Your task to perform on an android device: turn notification dots off Image 0: 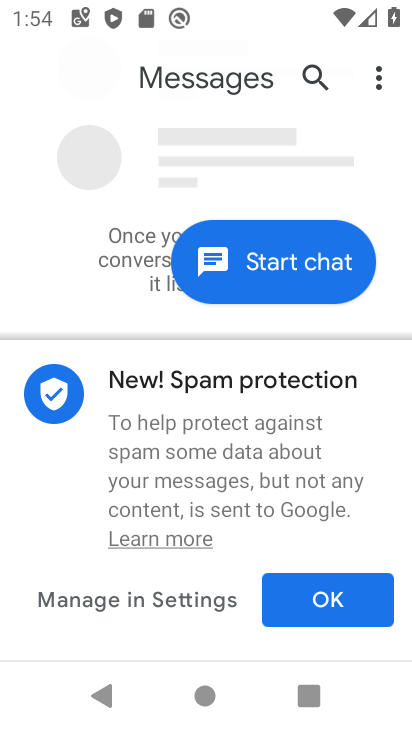
Step 0: press home button
Your task to perform on an android device: turn notification dots off Image 1: 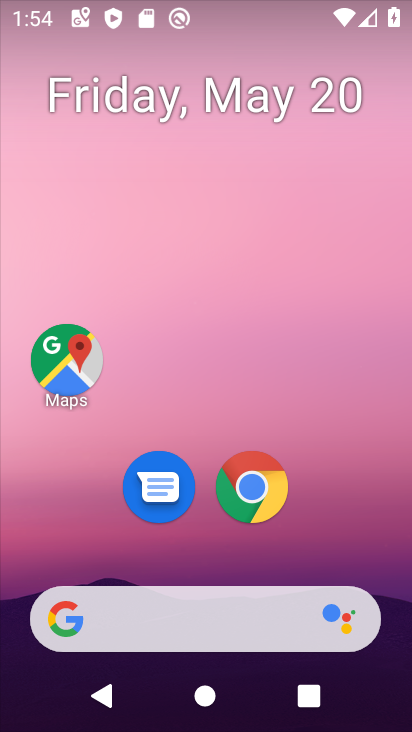
Step 1: drag from (360, 511) to (395, 69)
Your task to perform on an android device: turn notification dots off Image 2: 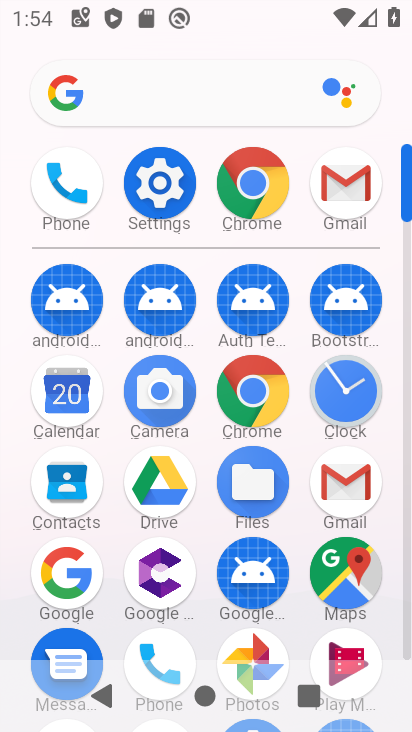
Step 2: click (163, 192)
Your task to perform on an android device: turn notification dots off Image 3: 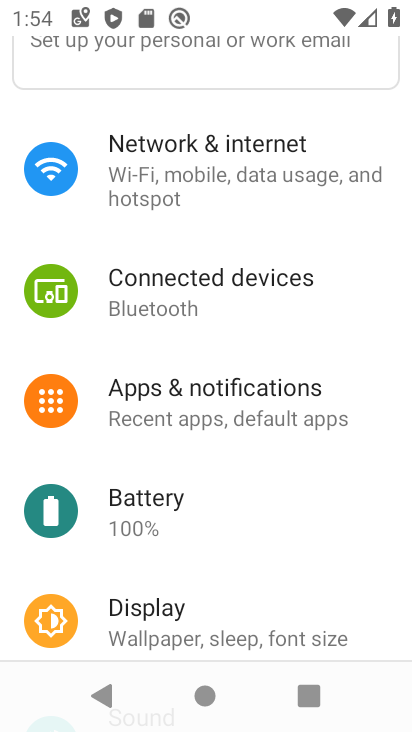
Step 3: click (261, 396)
Your task to perform on an android device: turn notification dots off Image 4: 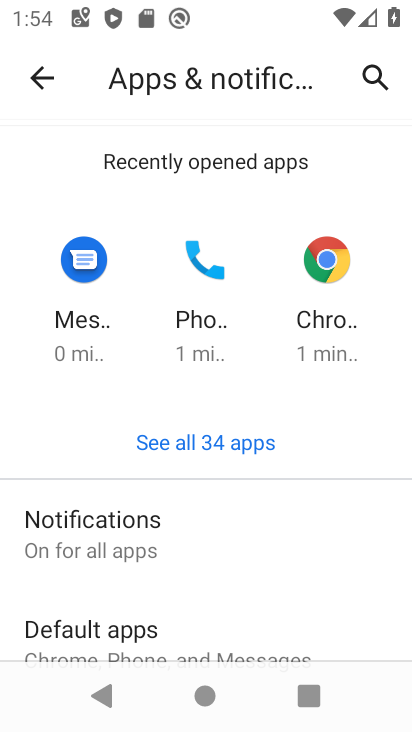
Step 4: click (132, 551)
Your task to perform on an android device: turn notification dots off Image 5: 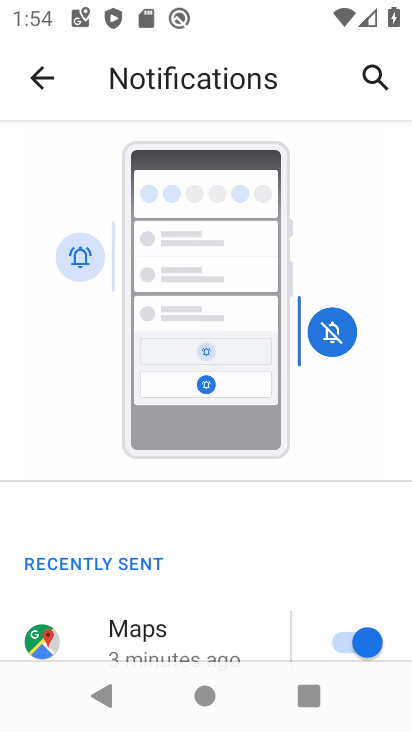
Step 5: drag from (141, 564) to (201, 166)
Your task to perform on an android device: turn notification dots off Image 6: 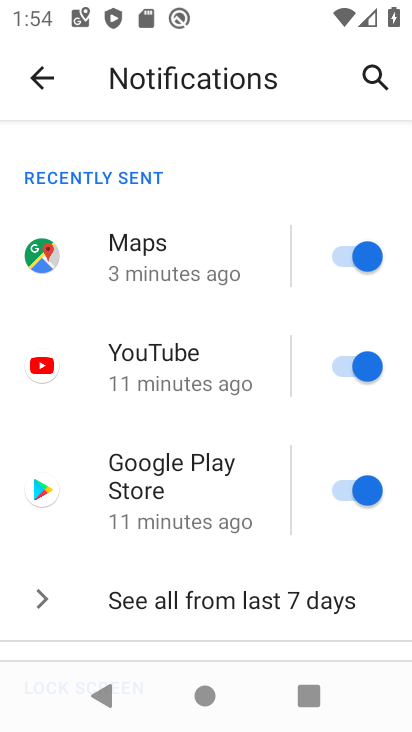
Step 6: drag from (169, 531) to (195, 88)
Your task to perform on an android device: turn notification dots off Image 7: 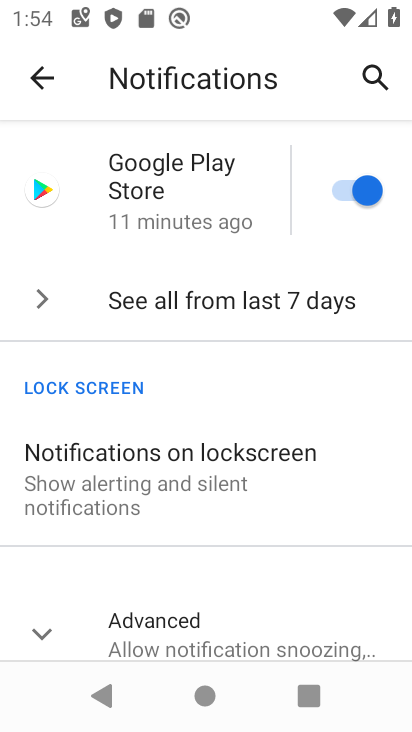
Step 7: drag from (202, 545) to (264, 103)
Your task to perform on an android device: turn notification dots off Image 8: 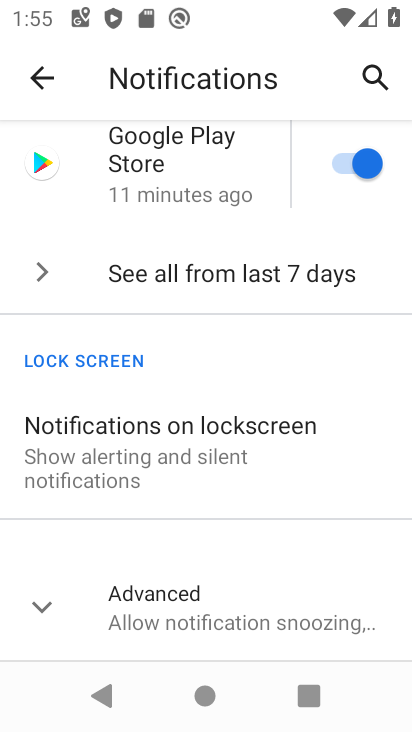
Step 8: click (179, 607)
Your task to perform on an android device: turn notification dots off Image 9: 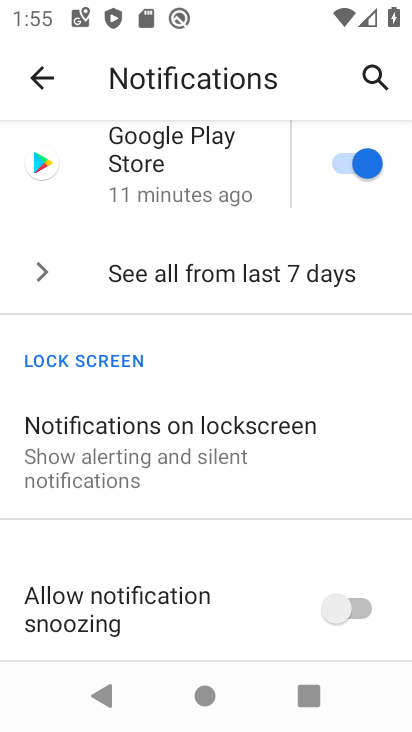
Step 9: task complete